Your task to perform on an android device: change text size in settings app Image 0: 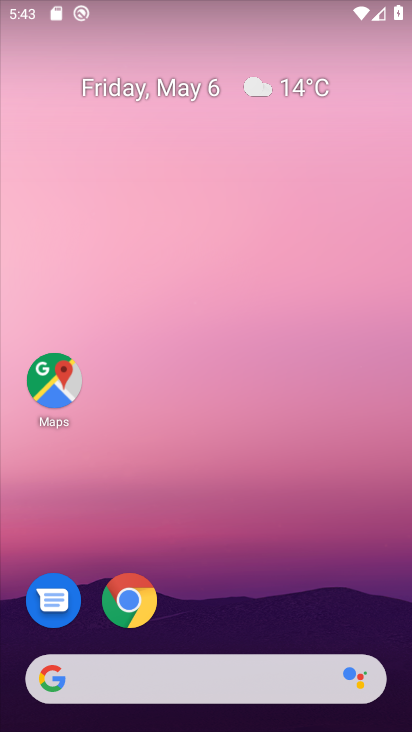
Step 0: drag from (266, 576) to (274, 1)
Your task to perform on an android device: change text size in settings app Image 1: 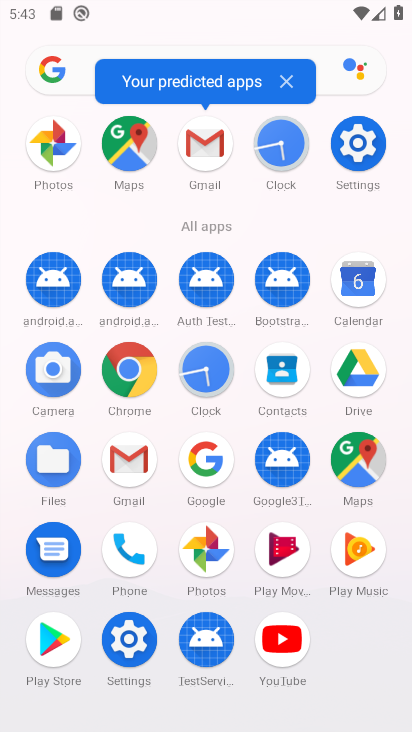
Step 1: click (356, 143)
Your task to perform on an android device: change text size in settings app Image 2: 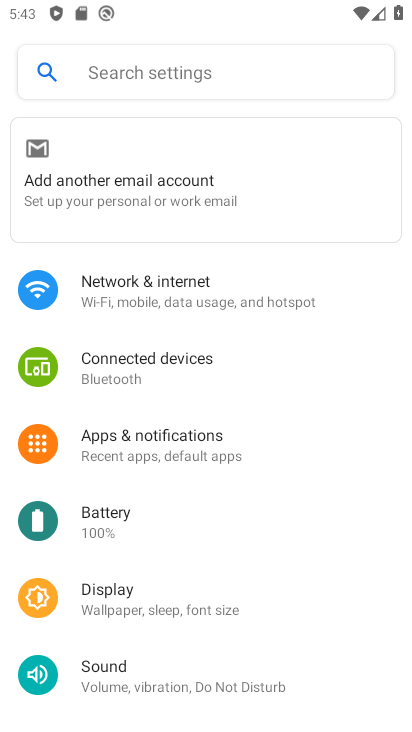
Step 2: drag from (178, 533) to (240, 342)
Your task to perform on an android device: change text size in settings app Image 3: 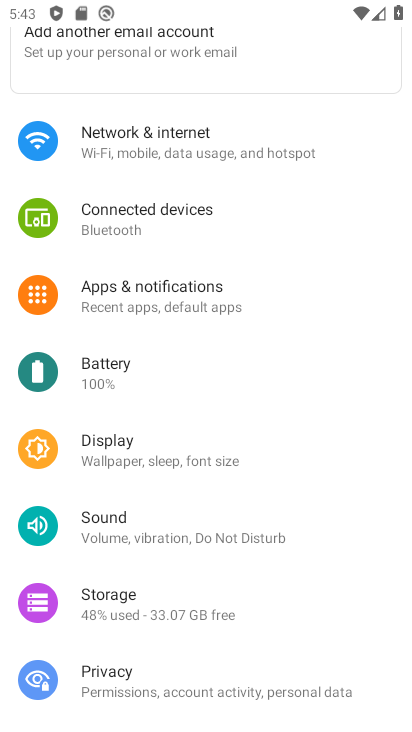
Step 3: drag from (152, 559) to (222, 401)
Your task to perform on an android device: change text size in settings app Image 4: 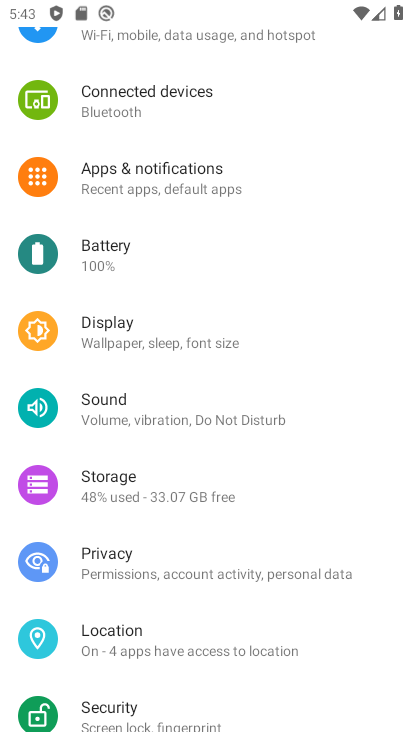
Step 4: drag from (139, 531) to (186, 416)
Your task to perform on an android device: change text size in settings app Image 5: 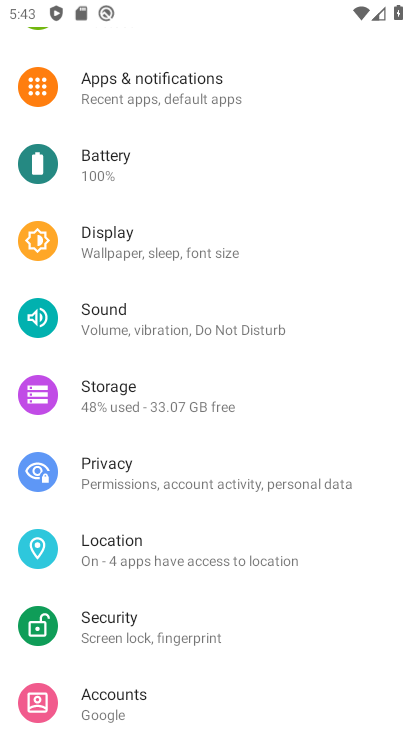
Step 5: drag from (127, 513) to (209, 391)
Your task to perform on an android device: change text size in settings app Image 6: 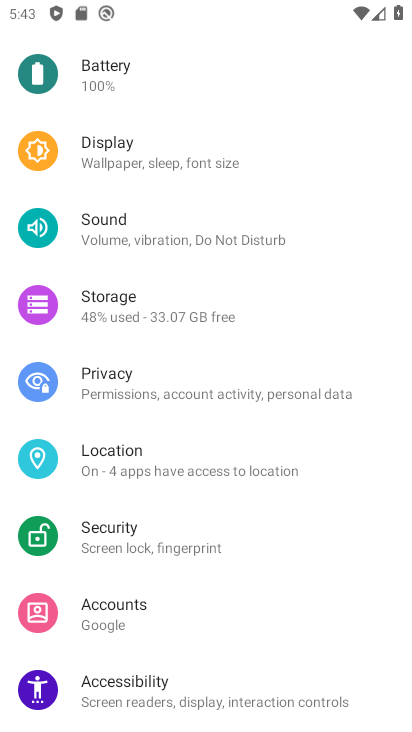
Step 6: drag from (155, 517) to (226, 412)
Your task to perform on an android device: change text size in settings app Image 7: 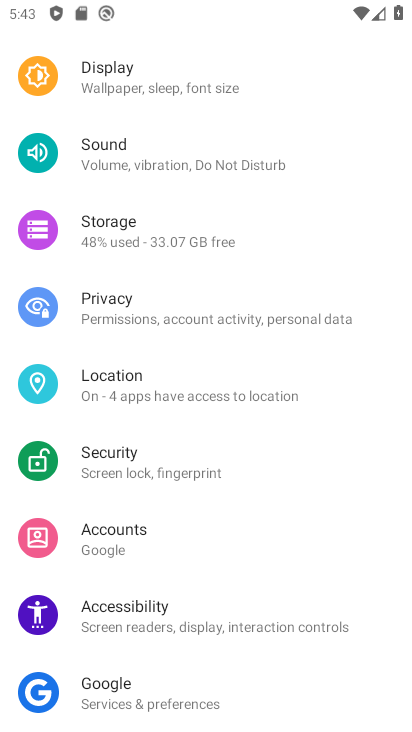
Step 7: drag from (135, 550) to (222, 447)
Your task to perform on an android device: change text size in settings app Image 8: 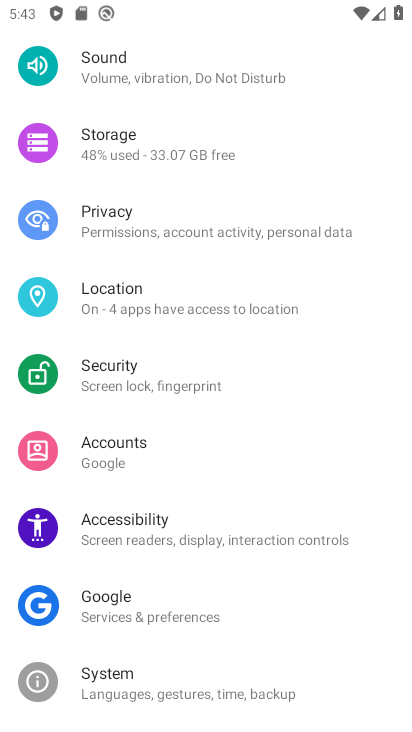
Step 8: click (124, 528)
Your task to perform on an android device: change text size in settings app Image 9: 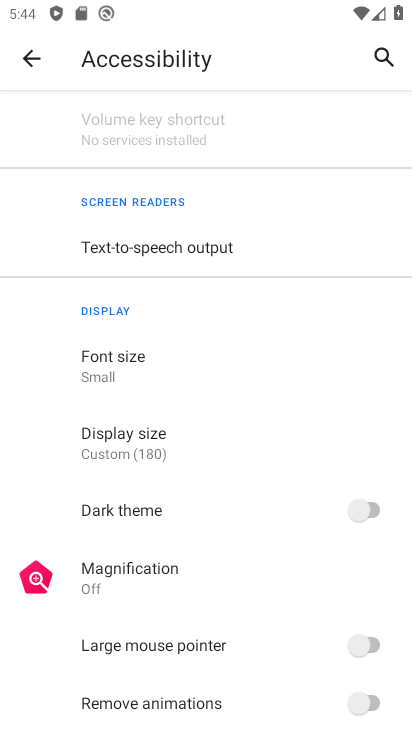
Step 9: drag from (169, 240) to (208, 447)
Your task to perform on an android device: change text size in settings app Image 10: 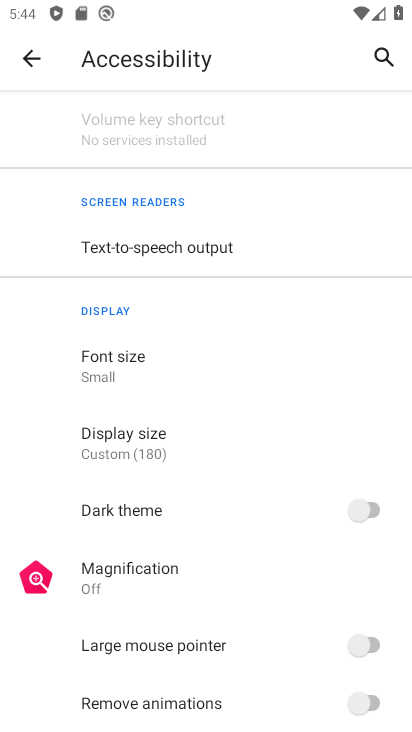
Step 10: click (122, 353)
Your task to perform on an android device: change text size in settings app Image 11: 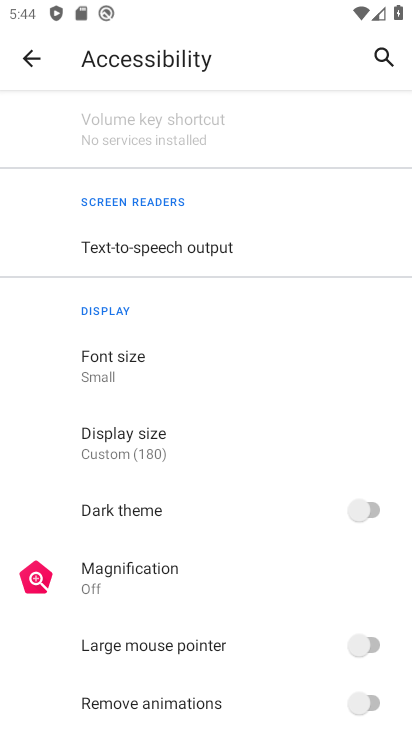
Step 11: click (114, 357)
Your task to perform on an android device: change text size in settings app Image 12: 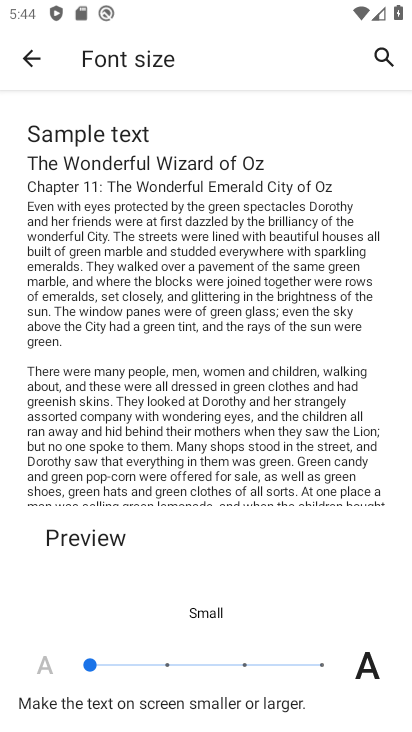
Step 12: click (162, 661)
Your task to perform on an android device: change text size in settings app Image 13: 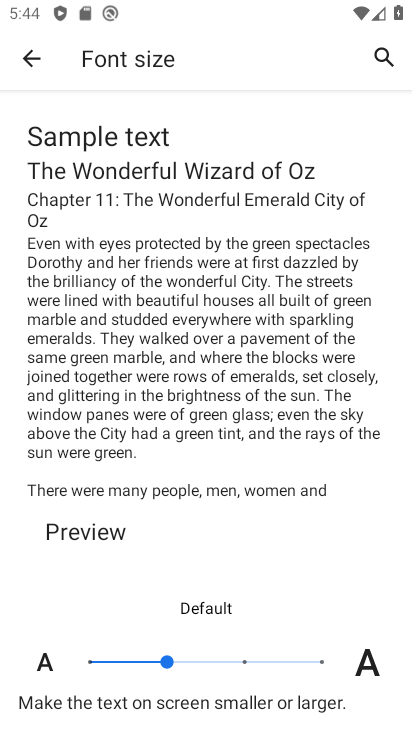
Step 13: task complete